Your task to perform on an android device: open app "TextNow: Call + Text Unlimited" (install if not already installed) and enter user name: "stoke@yahoo.com" and password: "prompted" Image 0: 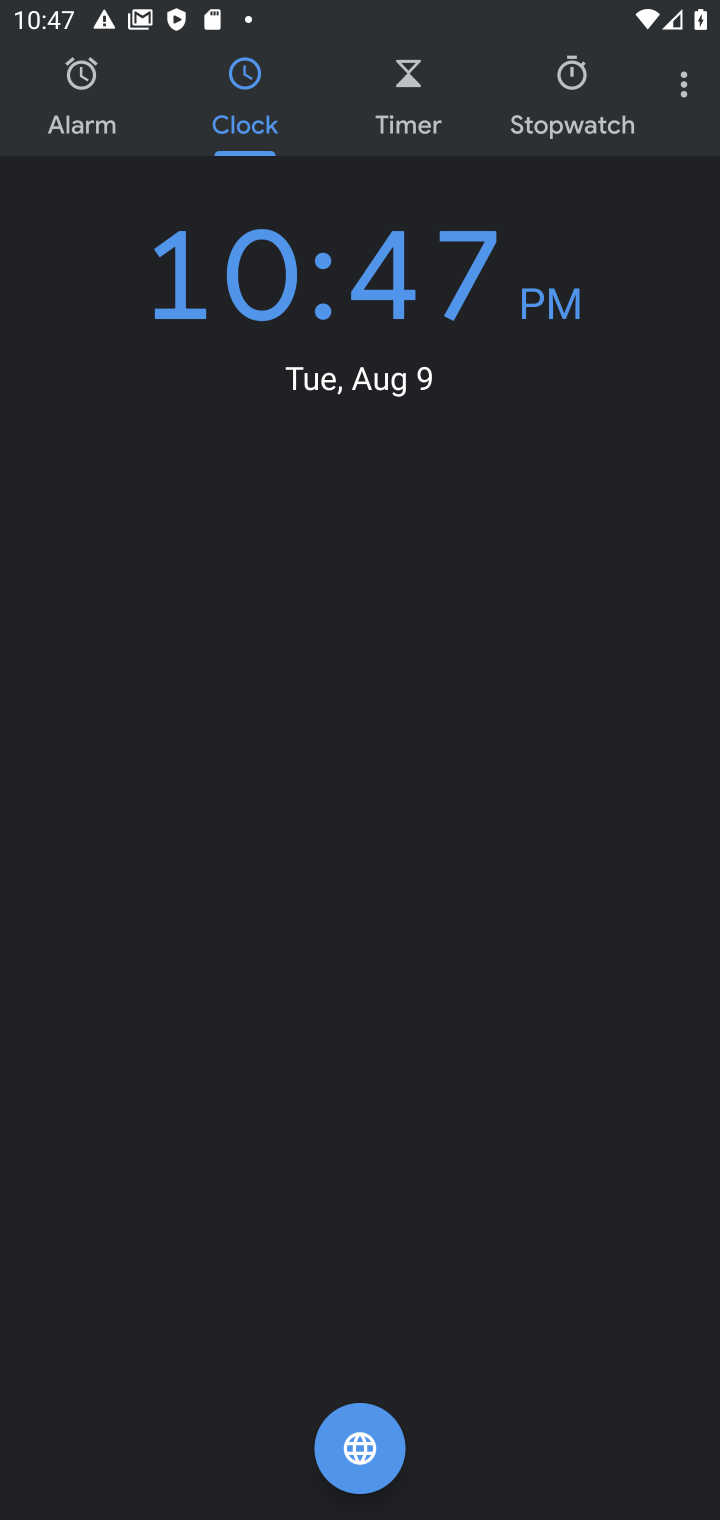
Step 0: press home button
Your task to perform on an android device: open app "TextNow: Call + Text Unlimited" (install if not already installed) and enter user name: "stoke@yahoo.com" and password: "prompted" Image 1: 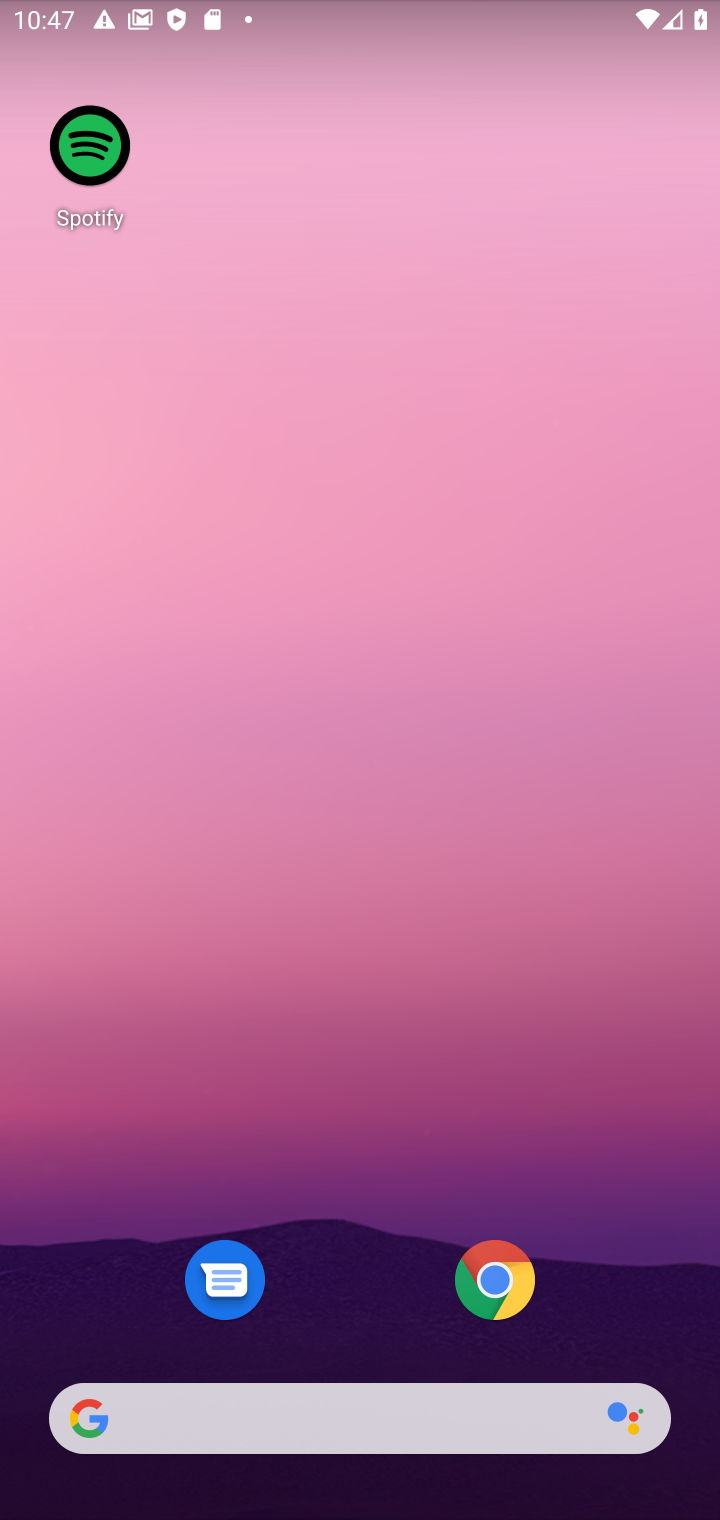
Step 1: drag from (326, 1331) to (274, 65)
Your task to perform on an android device: open app "TextNow: Call + Text Unlimited" (install if not already installed) and enter user name: "stoke@yahoo.com" and password: "prompted" Image 2: 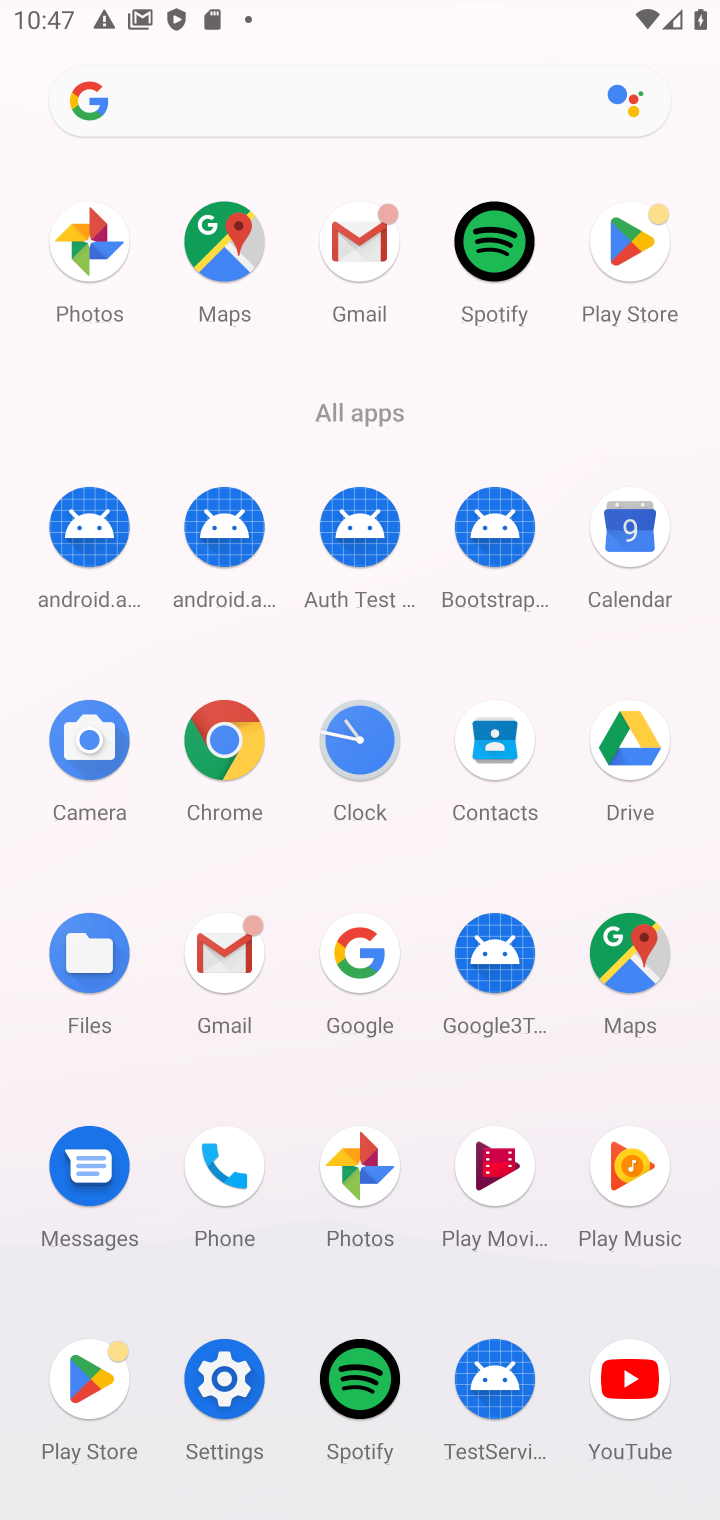
Step 2: click (90, 1390)
Your task to perform on an android device: open app "TextNow: Call + Text Unlimited" (install if not already installed) and enter user name: "stoke@yahoo.com" and password: "prompted" Image 3: 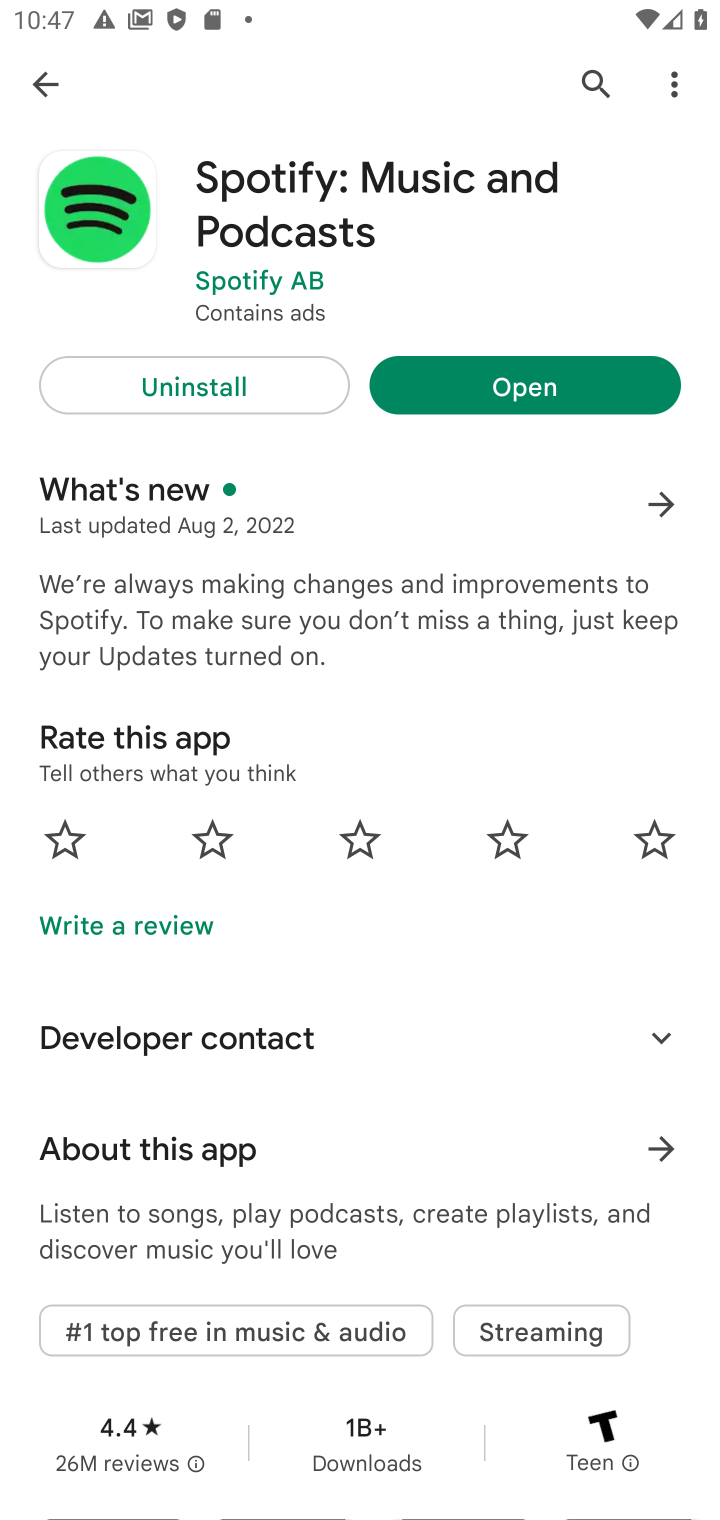
Step 3: click (17, 88)
Your task to perform on an android device: open app "TextNow: Call + Text Unlimited" (install if not already installed) and enter user name: "stoke@yahoo.com" and password: "prompted" Image 4: 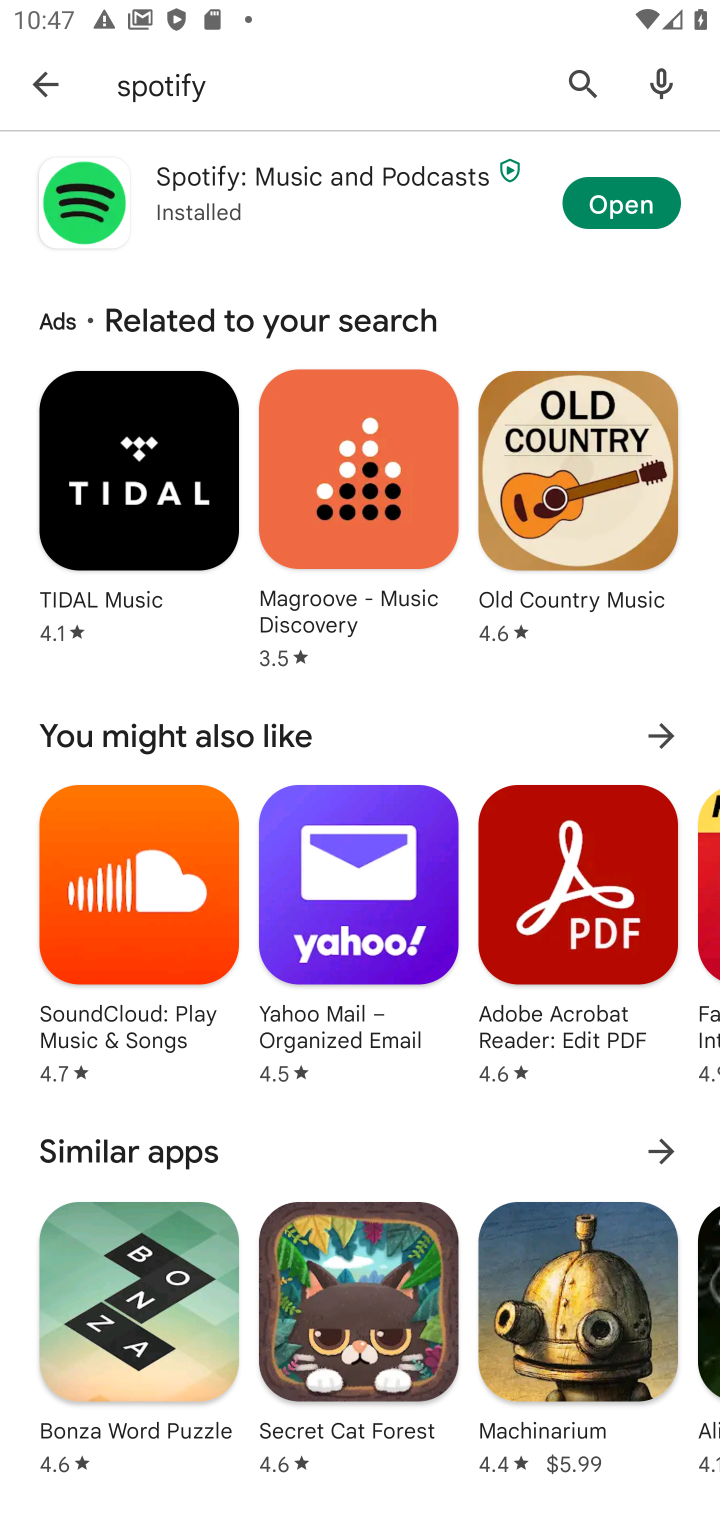
Step 4: click (585, 75)
Your task to perform on an android device: open app "TextNow: Call + Text Unlimited" (install if not already installed) and enter user name: "stoke@yahoo.com" and password: "prompted" Image 5: 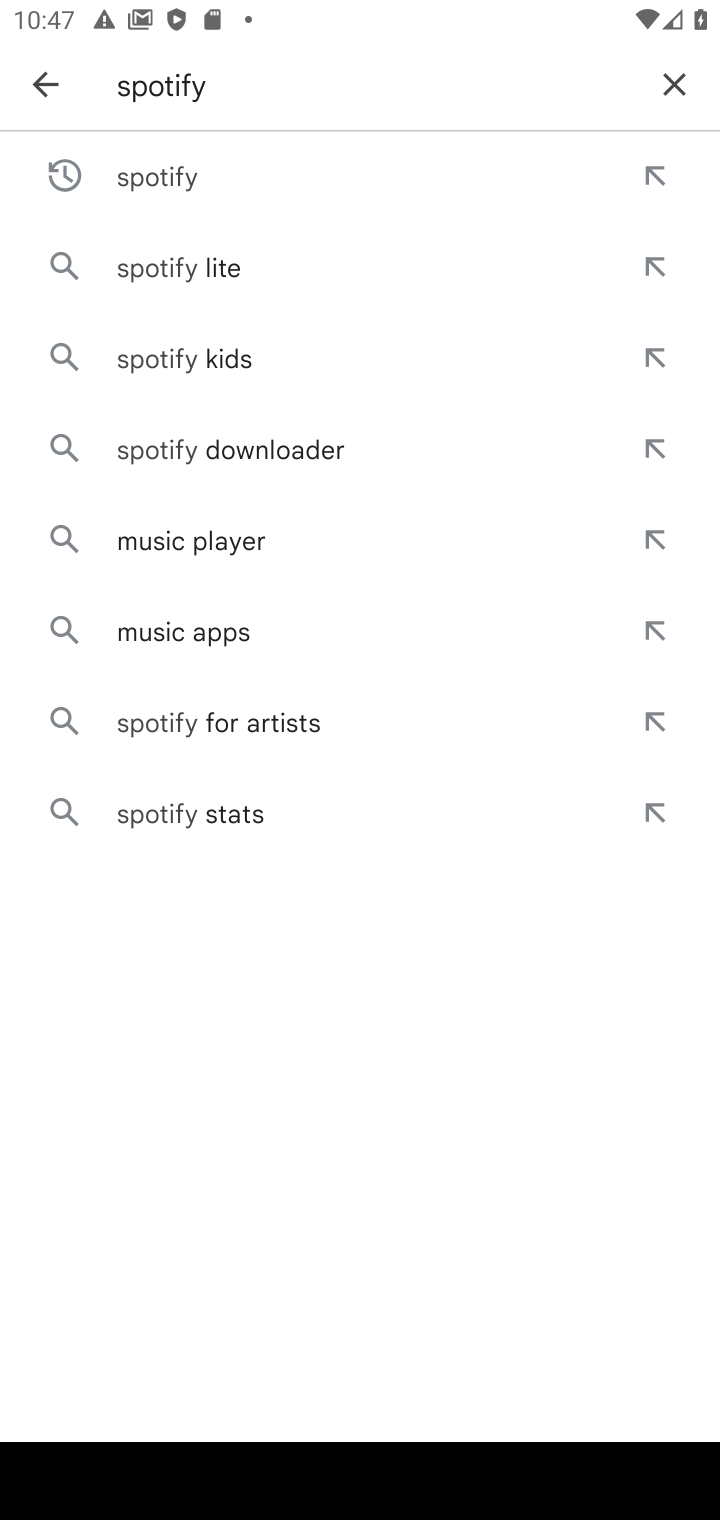
Step 5: click (683, 78)
Your task to perform on an android device: open app "TextNow: Call + Text Unlimited" (install if not already installed) and enter user name: "stoke@yahoo.com" and password: "prompted" Image 6: 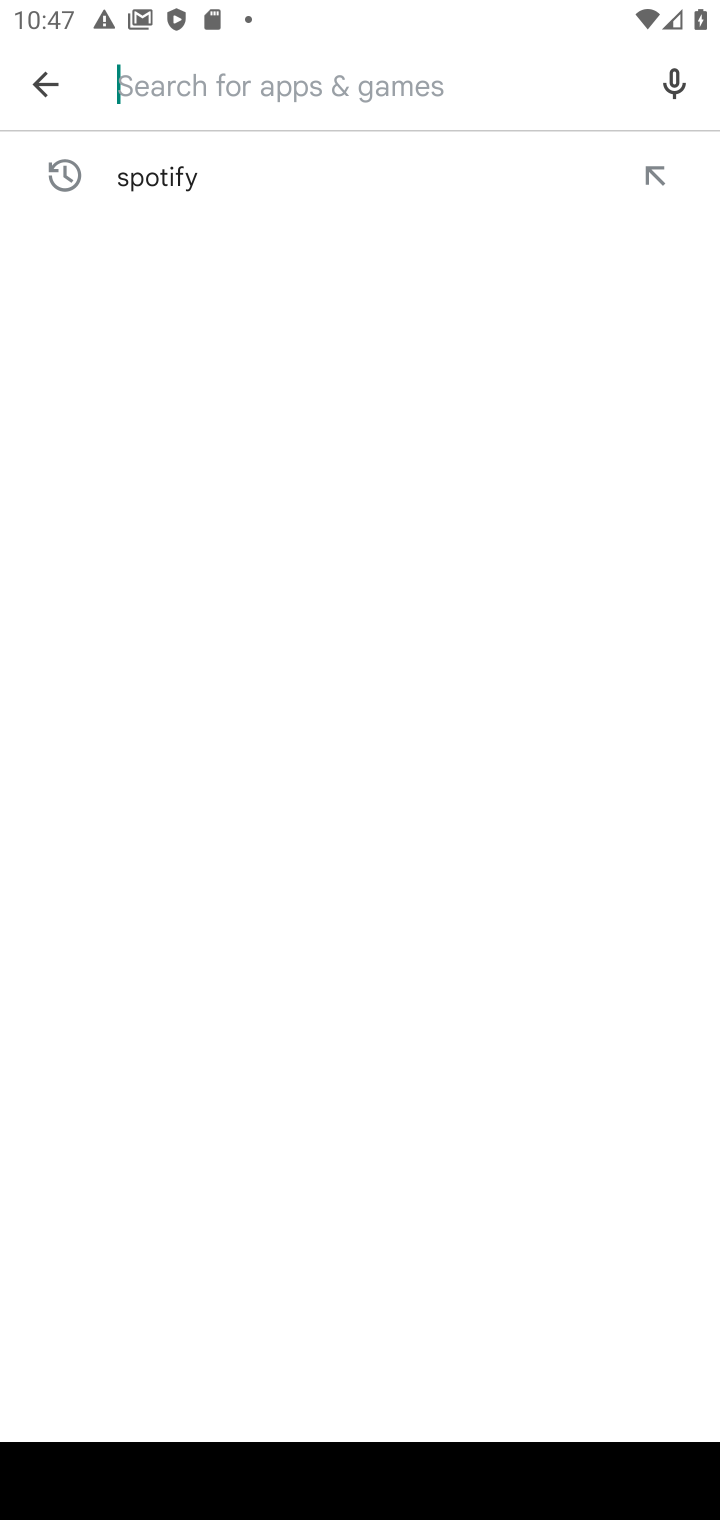
Step 6: type "TextNow: Call + Text Unlimited"
Your task to perform on an android device: open app "TextNow: Call + Text Unlimited" (install if not already installed) and enter user name: "stoke@yahoo.com" and password: "prompted" Image 7: 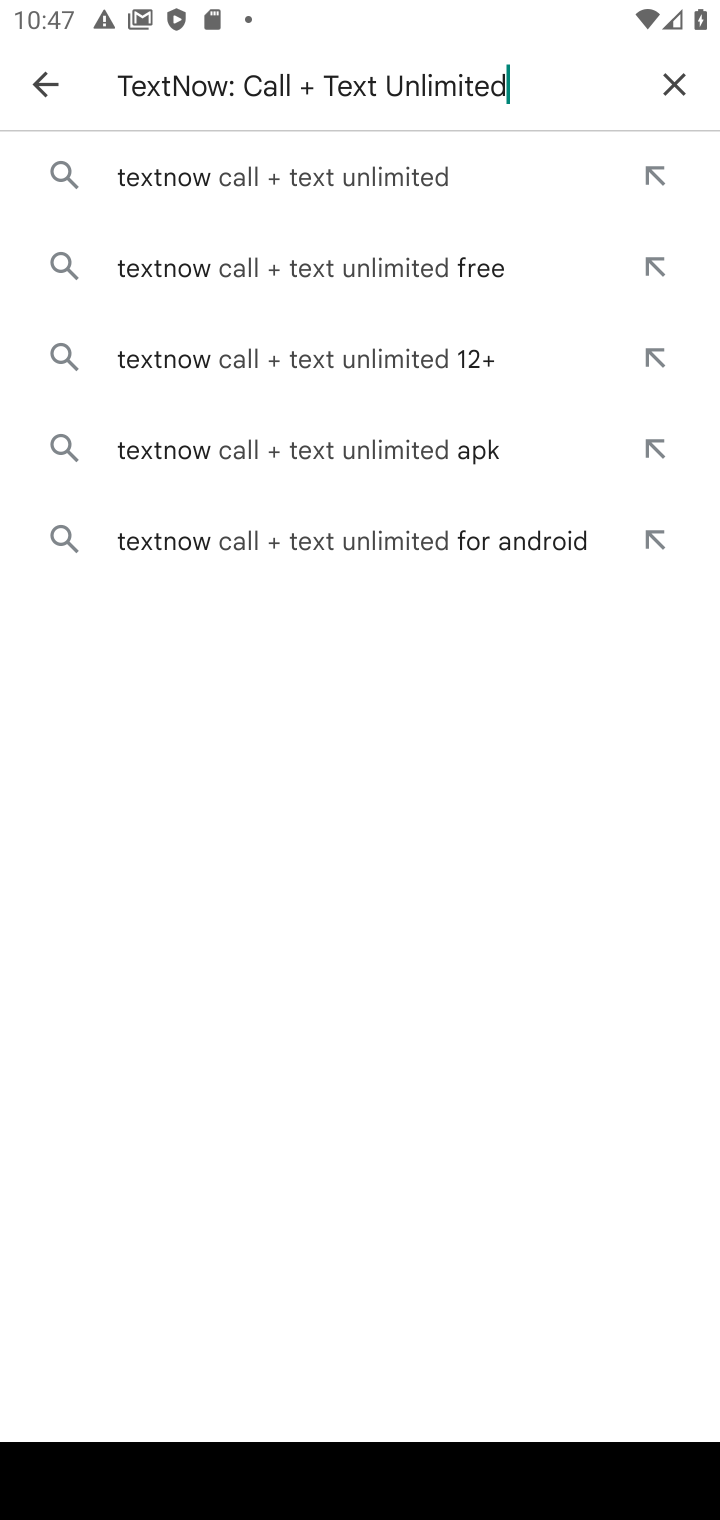
Step 7: click (295, 165)
Your task to perform on an android device: open app "TextNow: Call + Text Unlimited" (install if not already installed) and enter user name: "stoke@yahoo.com" and password: "prompted" Image 8: 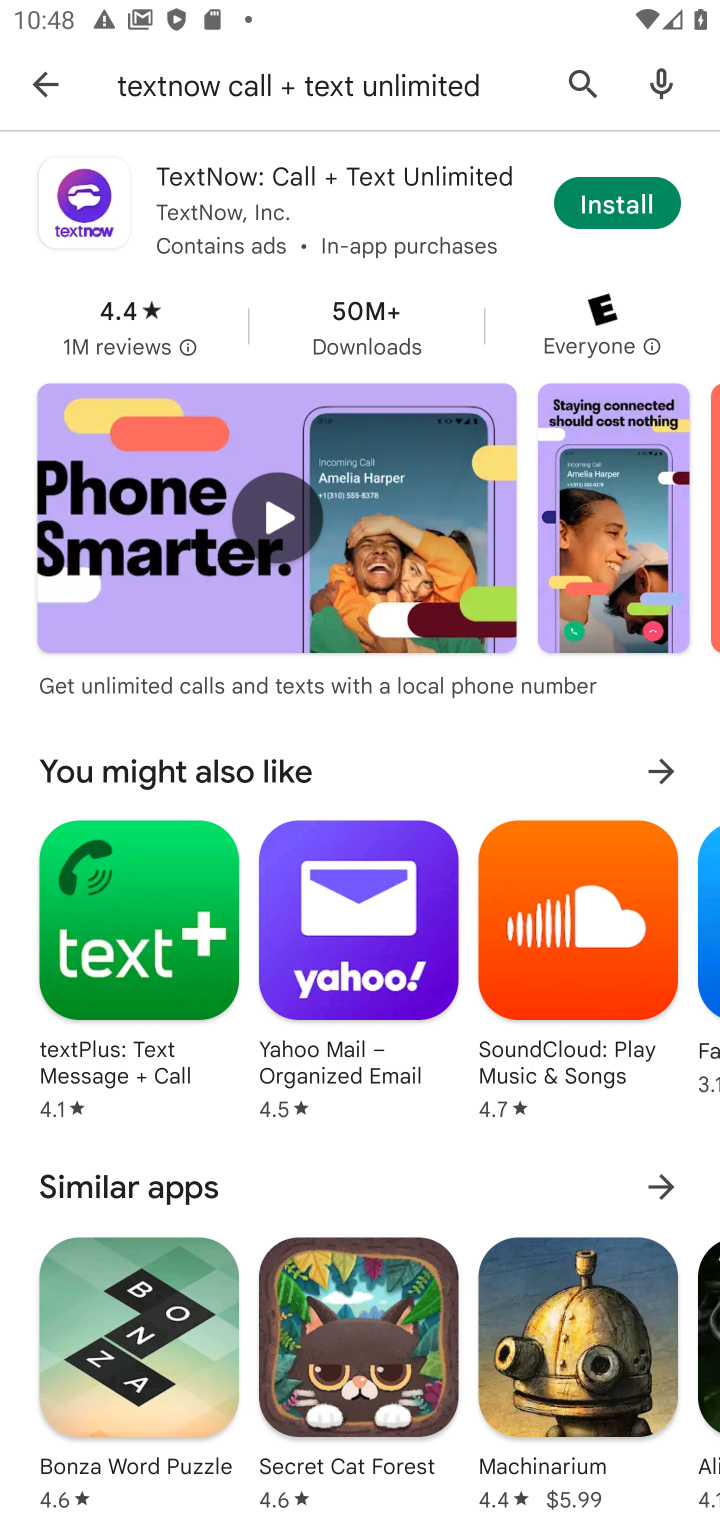
Step 8: click (593, 190)
Your task to perform on an android device: open app "TextNow: Call + Text Unlimited" (install if not already installed) and enter user name: "stoke@yahoo.com" and password: "prompted" Image 9: 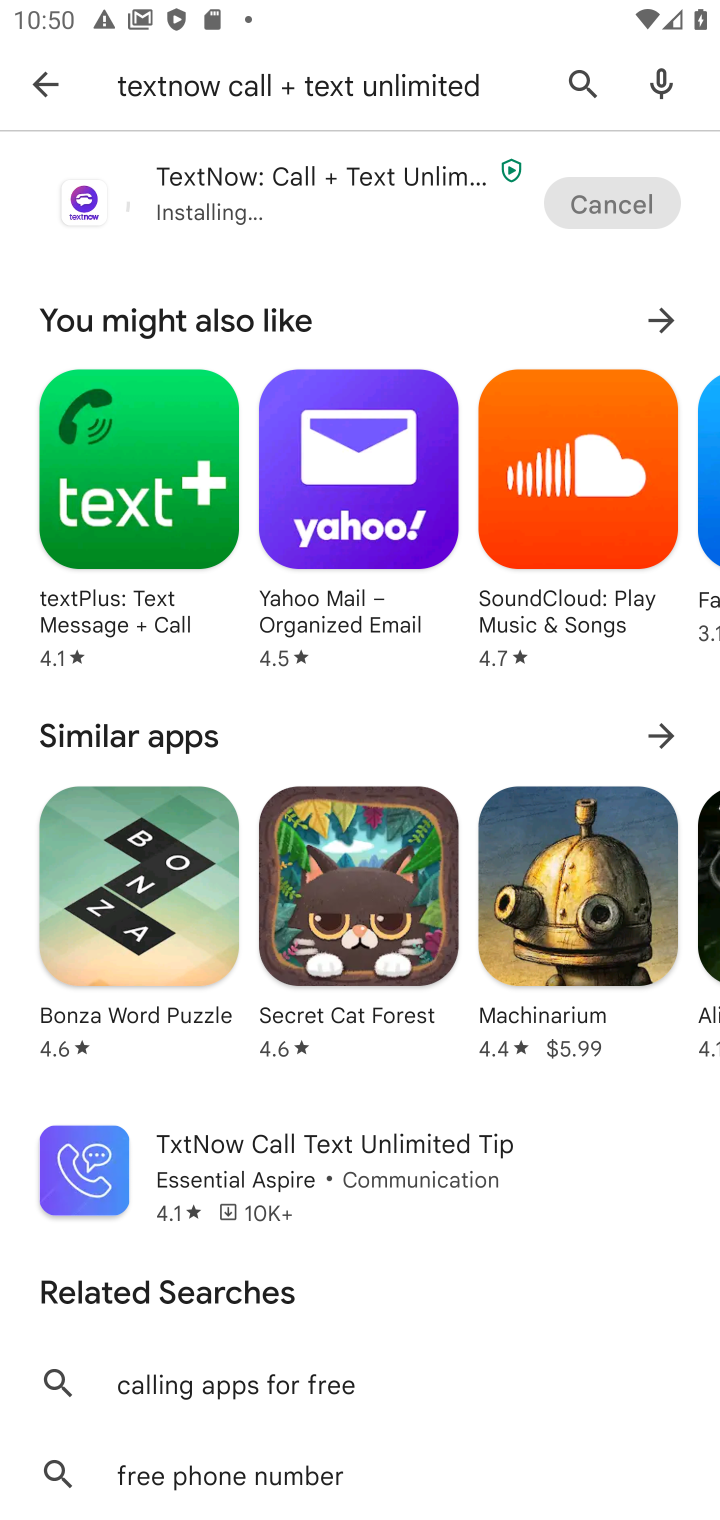
Step 9: click (192, 238)
Your task to perform on an android device: open app "TextNow: Call + Text Unlimited" (install if not already installed) and enter user name: "stoke@yahoo.com" and password: "prompted" Image 10: 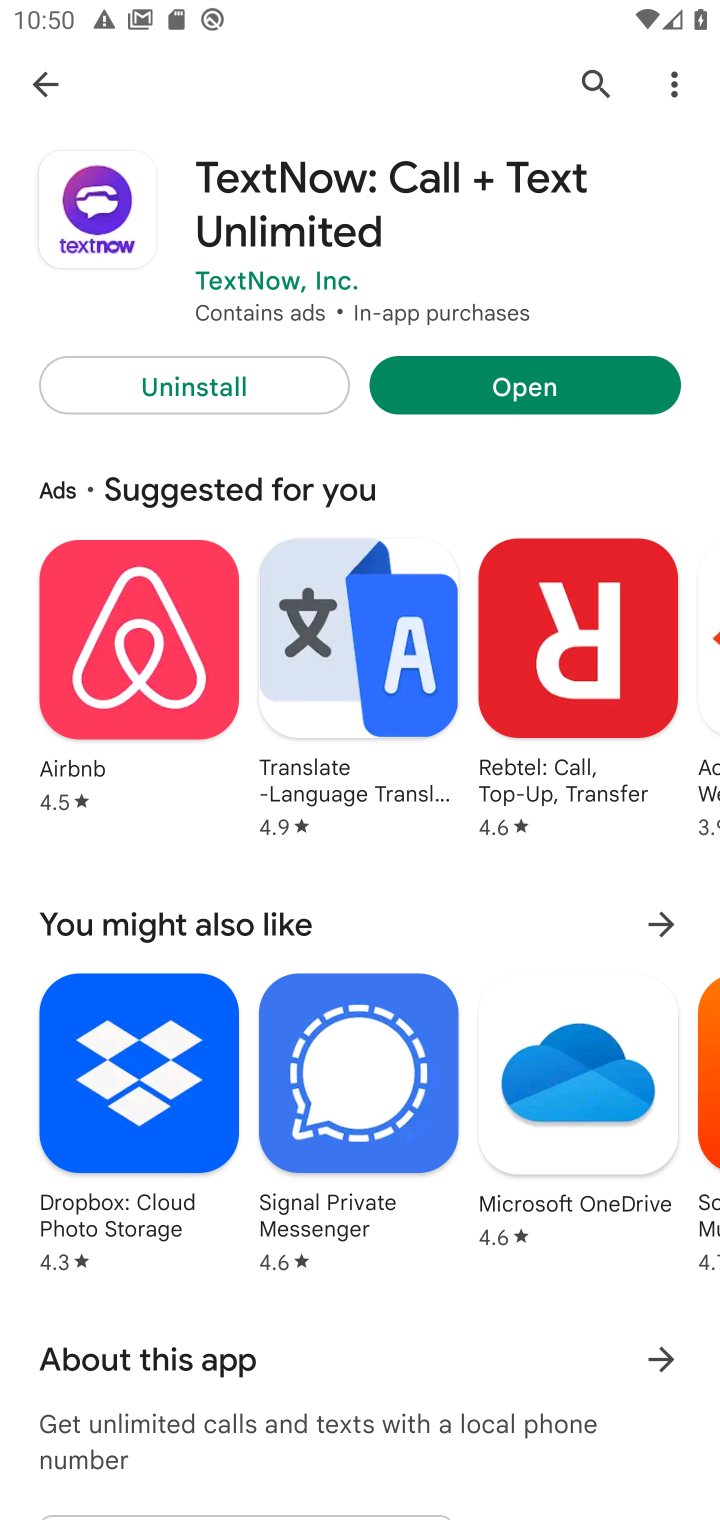
Step 10: click (534, 385)
Your task to perform on an android device: open app "TextNow: Call + Text Unlimited" (install if not already installed) and enter user name: "stoke@yahoo.com" and password: "prompted" Image 11: 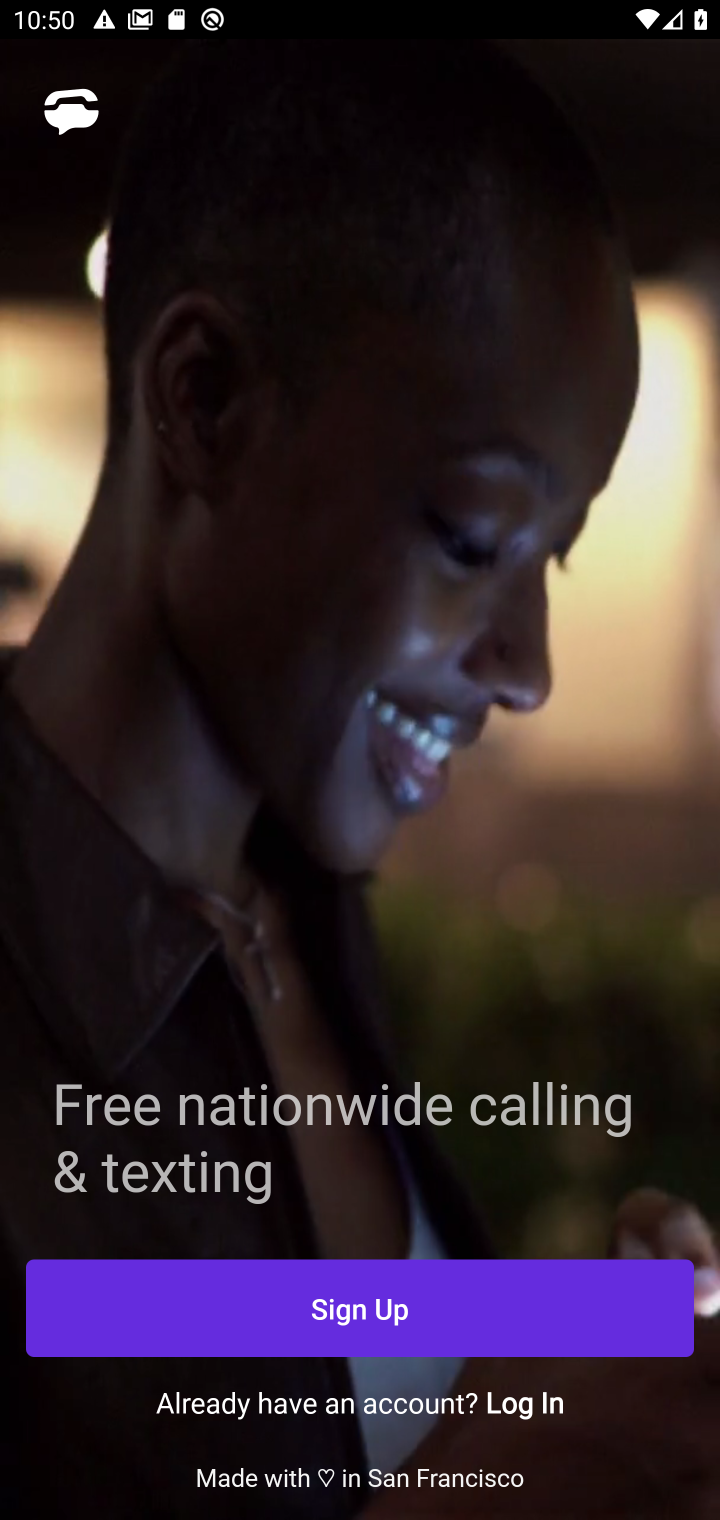
Step 11: click (563, 1418)
Your task to perform on an android device: open app "TextNow: Call + Text Unlimited" (install if not already installed) and enter user name: "stoke@yahoo.com" and password: "prompted" Image 12: 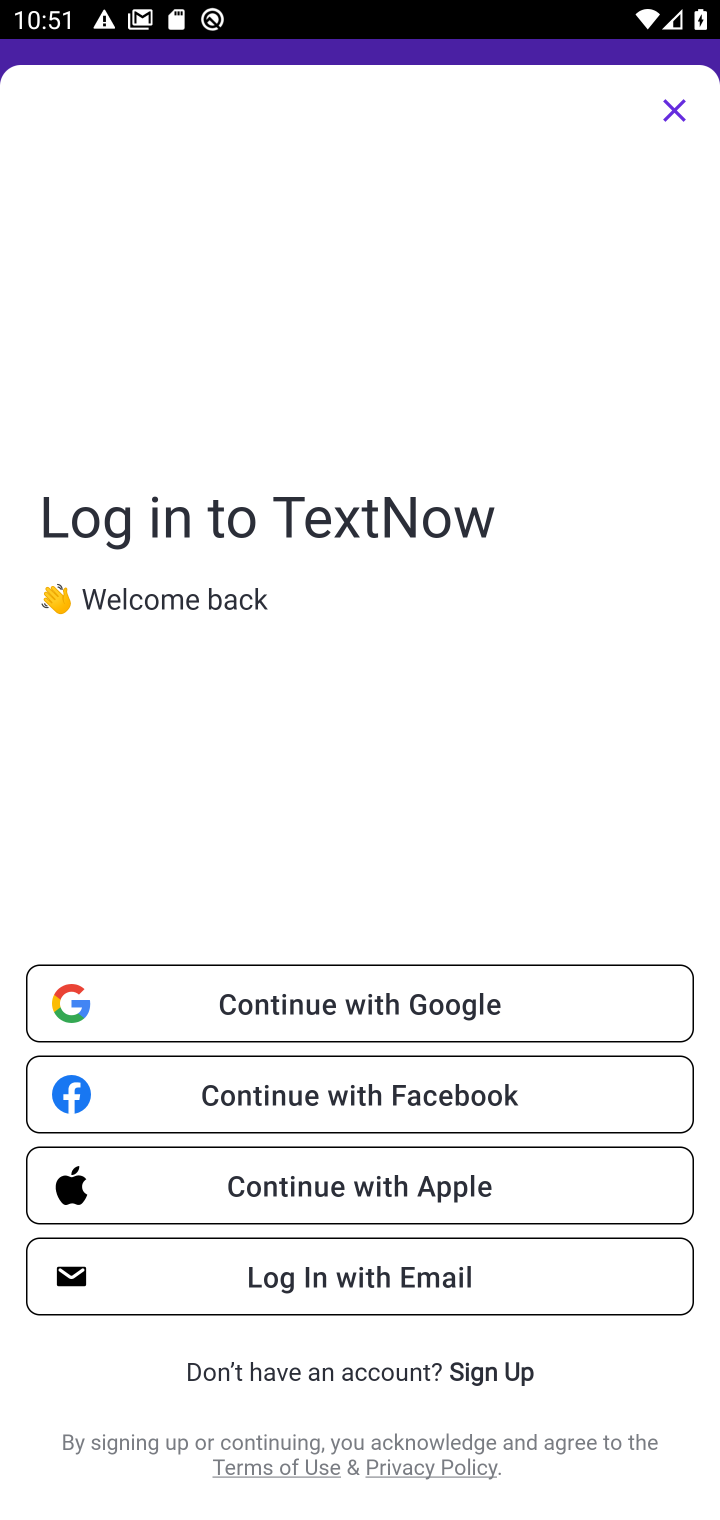
Step 12: click (149, 1005)
Your task to perform on an android device: open app "TextNow: Call + Text Unlimited" (install if not already installed) and enter user name: "stoke@yahoo.com" and password: "prompted" Image 13: 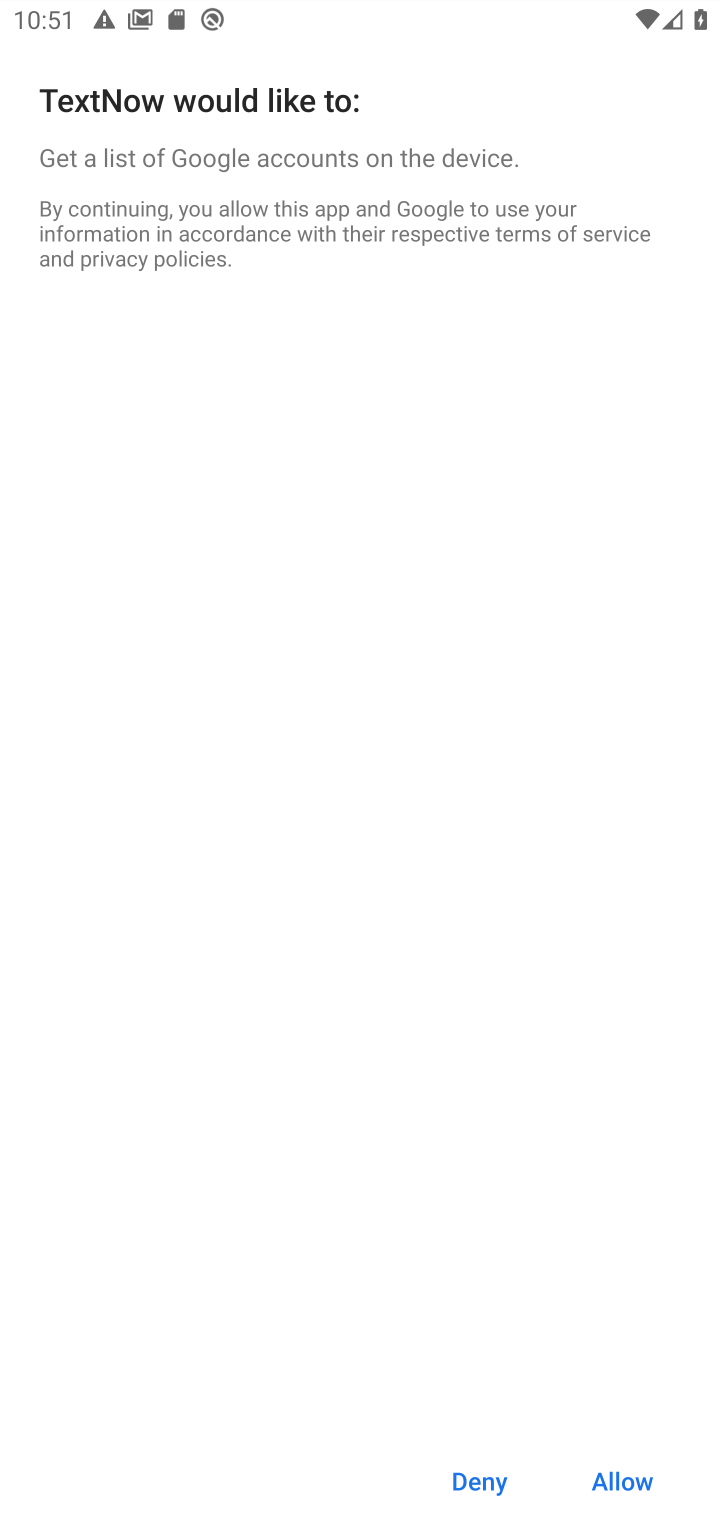
Step 13: click (598, 1494)
Your task to perform on an android device: open app "TextNow: Call + Text Unlimited" (install if not already installed) and enter user name: "stoke@yahoo.com" and password: "prompted" Image 14: 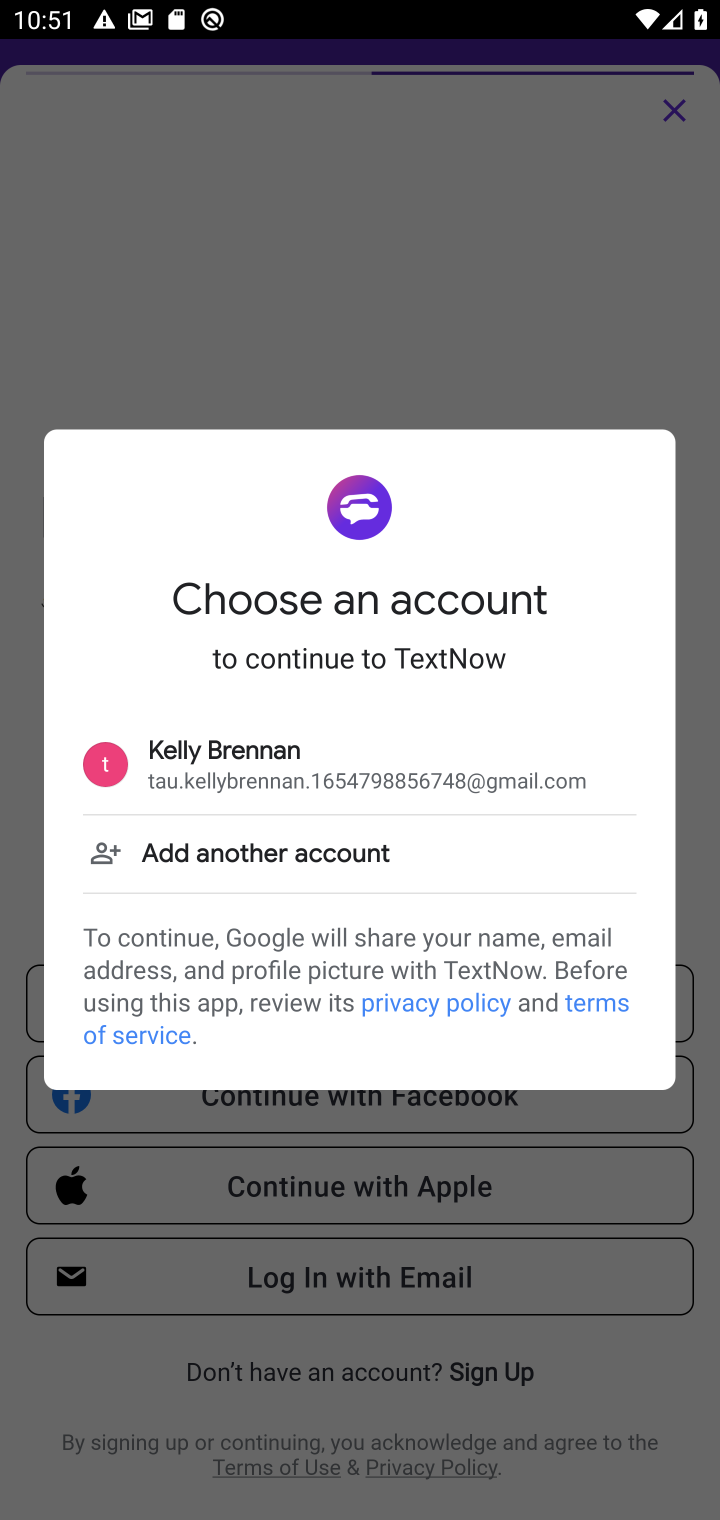
Step 14: task complete